Your task to perform on an android device: Search for seafood restaurants on Google Maps Image 0: 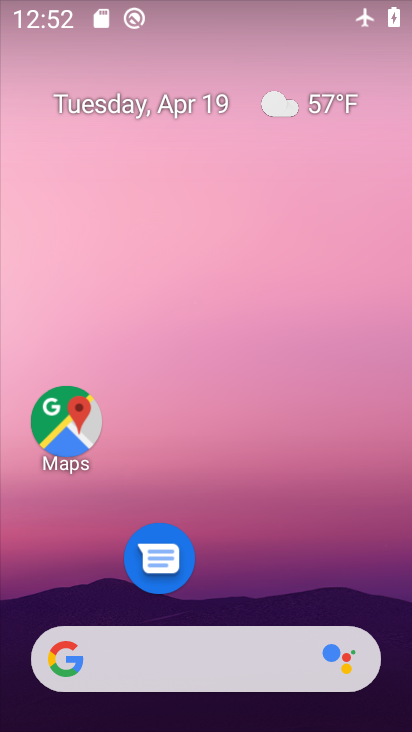
Step 0: click (59, 439)
Your task to perform on an android device: Search for seafood restaurants on Google Maps Image 1: 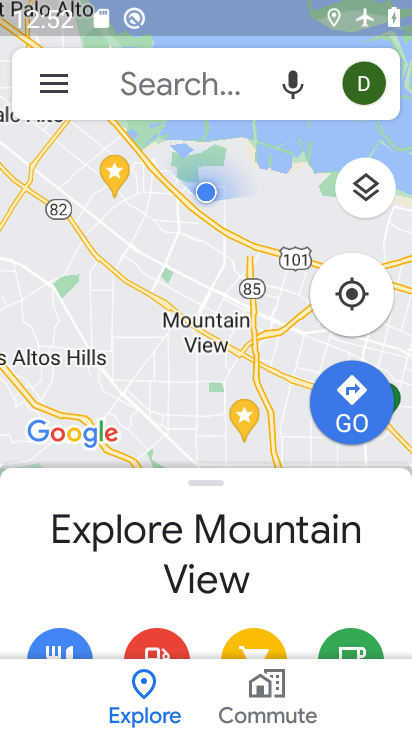
Step 1: click (189, 84)
Your task to perform on an android device: Search for seafood restaurants on Google Maps Image 2: 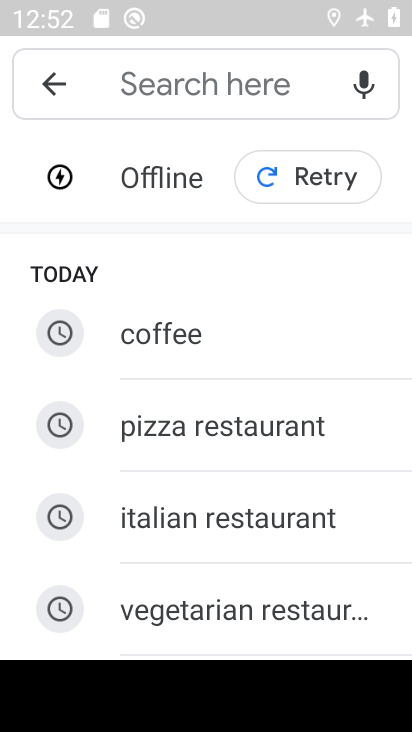
Step 2: type "seafood restaurants"
Your task to perform on an android device: Search for seafood restaurants on Google Maps Image 3: 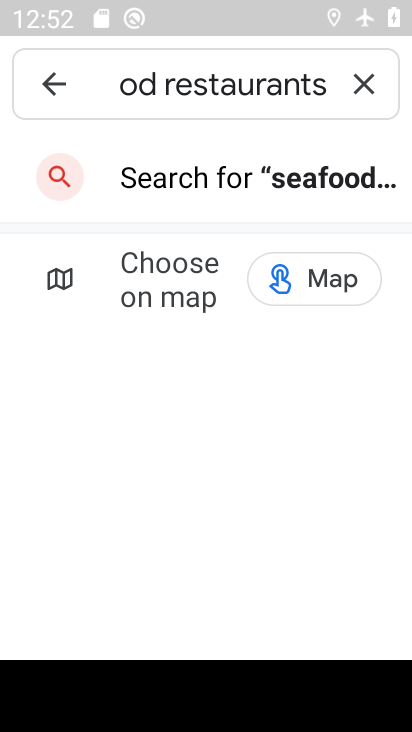
Step 3: click (276, 182)
Your task to perform on an android device: Search for seafood restaurants on Google Maps Image 4: 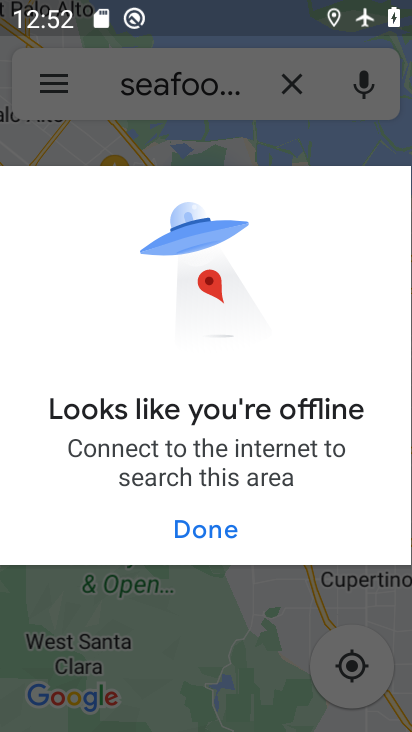
Step 4: task complete